Your task to perform on an android device: show emergency info Image 0: 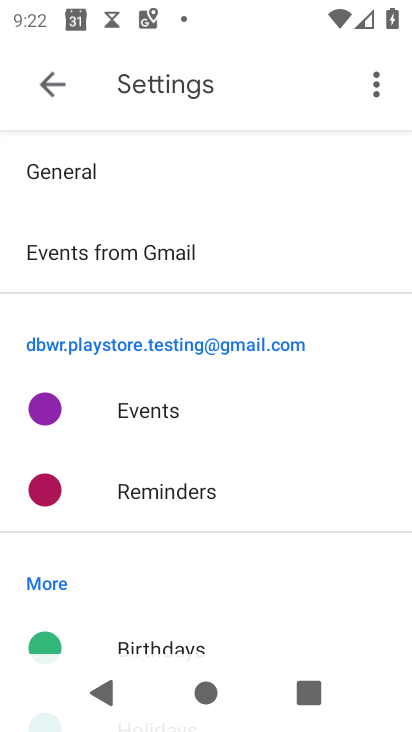
Step 0: press home button
Your task to perform on an android device: show emergency info Image 1: 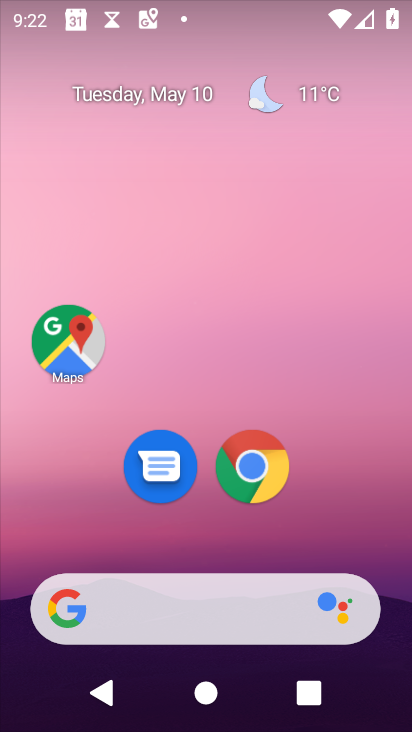
Step 1: drag from (291, 531) to (274, 28)
Your task to perform on an android device: show emergency info Image 2: 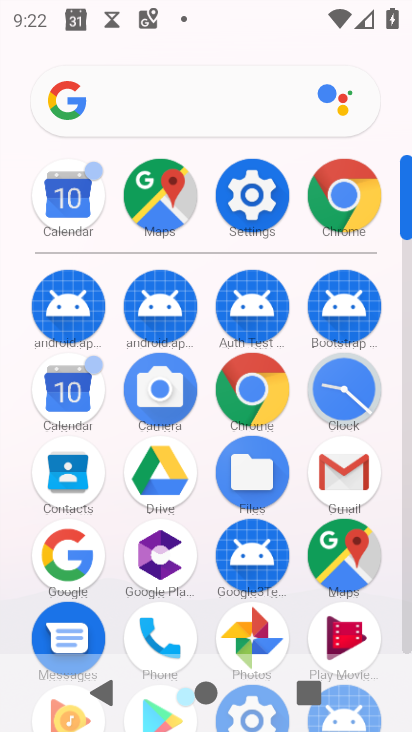
Step 2: click (260, 195)
Your task to perform on an android device: show emergency info Image 3: 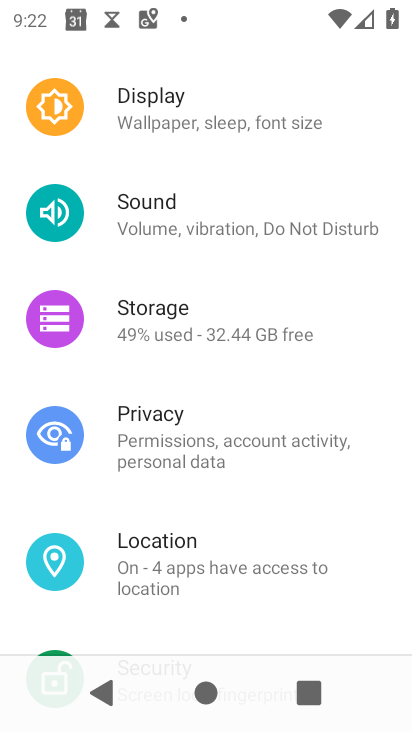
Step 3: drag from (253, 508) to (267, 291)
Your task to perform on an android device: show emergency info Image 4: 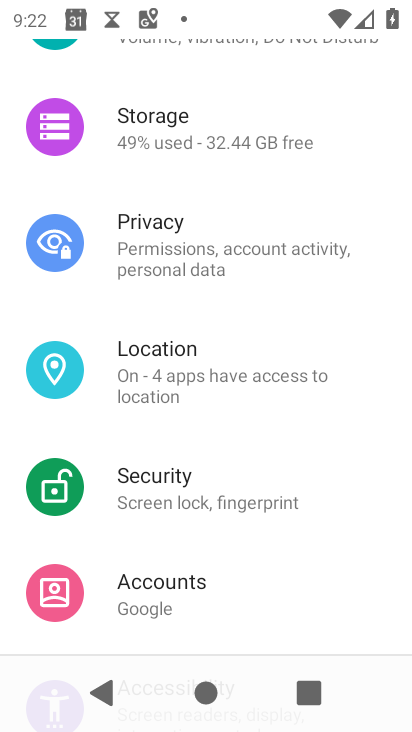
Step 4: drag from (251, 481) to (286, 221)
Your task to perform on an android device: show emergency info Image 5: 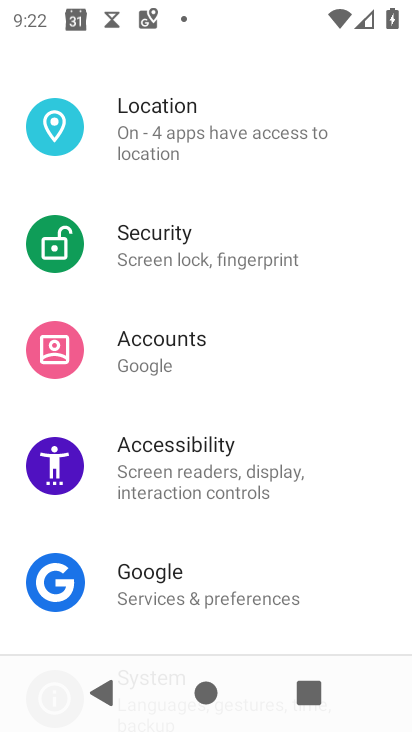
Step 5: drag from (227, 457) to (231, 264)
Your task to perform on an android device: show emergency info Image 6: 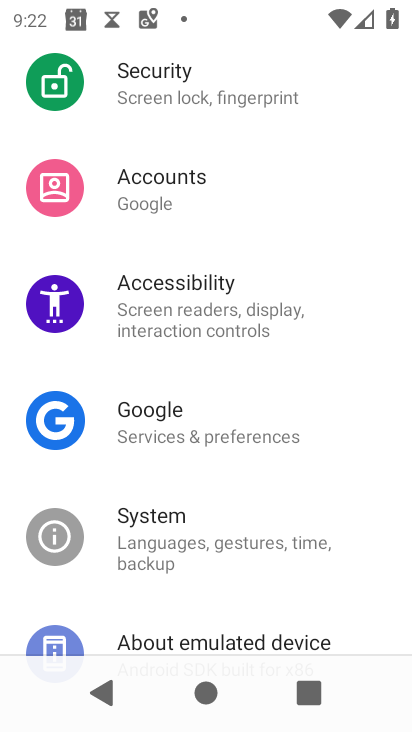
Step 6: drag from (192, 524) to (234, 294)
Your task to perform on an android device: show emergency info Image 7: 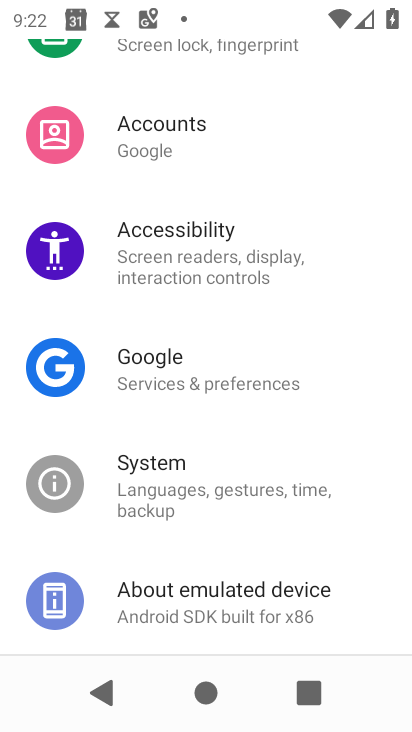
Step 7: click (188, 607)
Your task to perform on an android device: show emergency info Image 8: 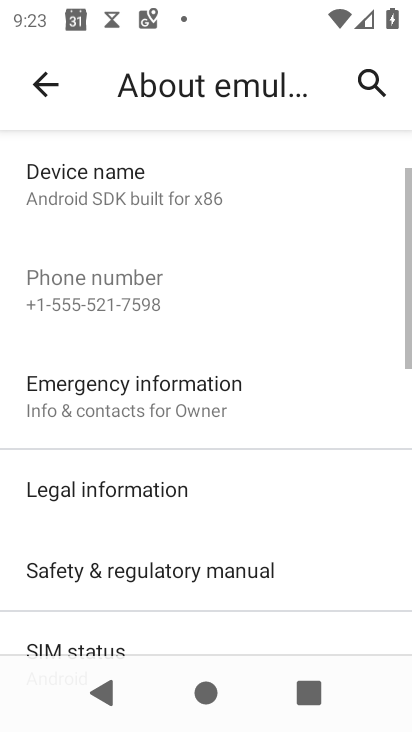
Step 8: click (230, 401)
Your task to perform on an android device: show emergency info Image 9: 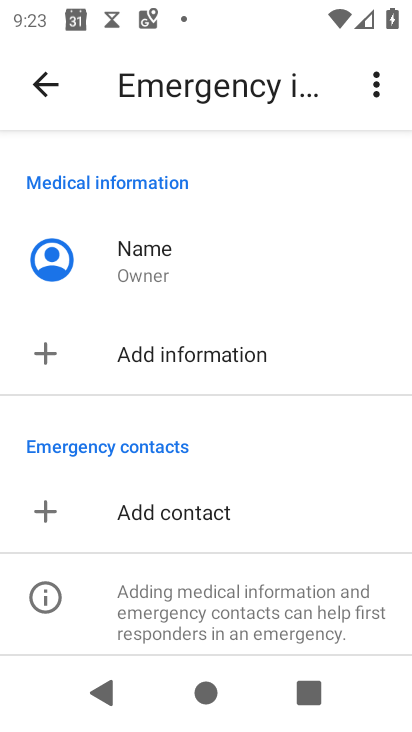
Step 9: task complete